Your task to perform on an android device: Open Google Chrome Image 0: 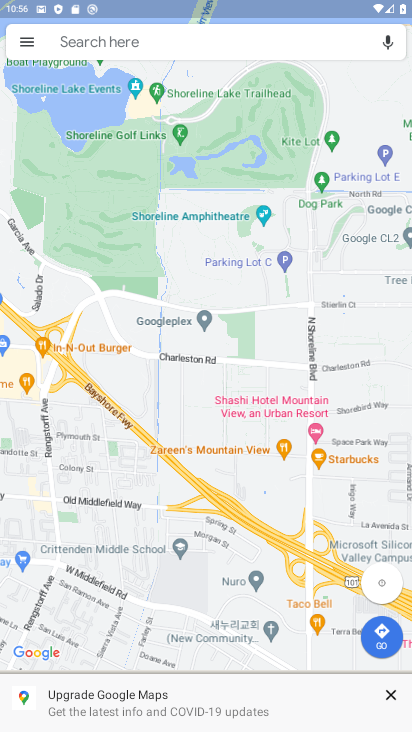
Step 0: press home button
Your task to perform on an android device: Open Google Chrome Image 1: 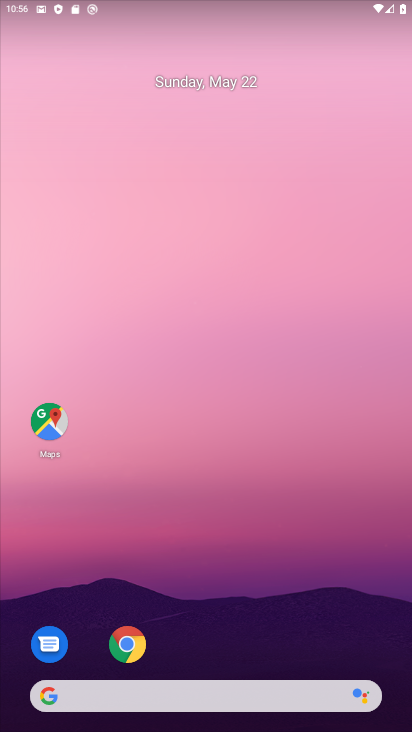
Step 1: click (124, 641)
Your task to perform on an android device: Open Google Chrome Image 2: 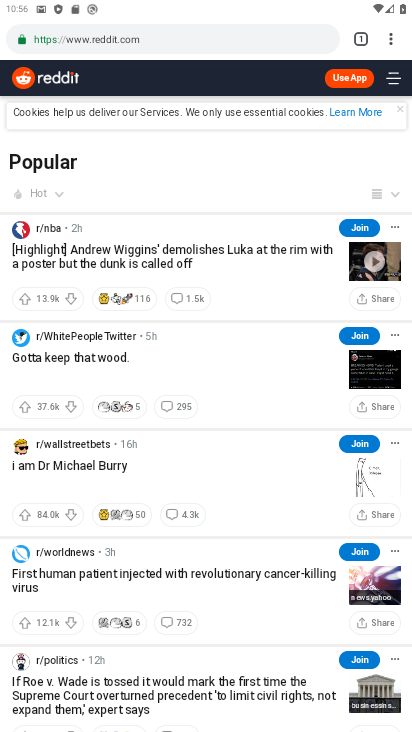
Step 2: click (360, 35)
Your task to perform on an android device: Open Google Chrome Image 3: 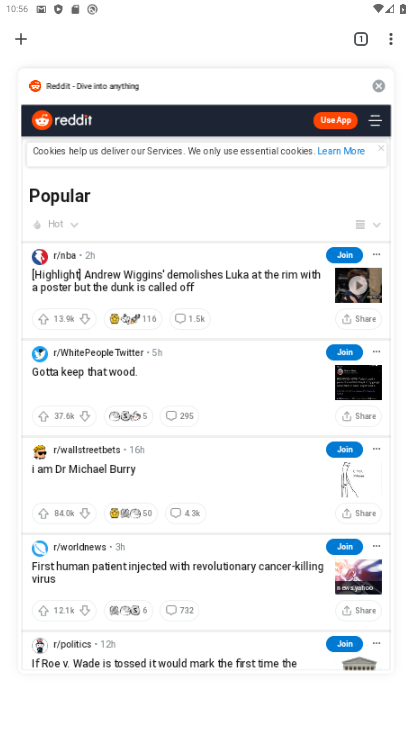
Step 3: click (380, 84)
Your task to perform on an android device: Open Google Chrome Image 4: 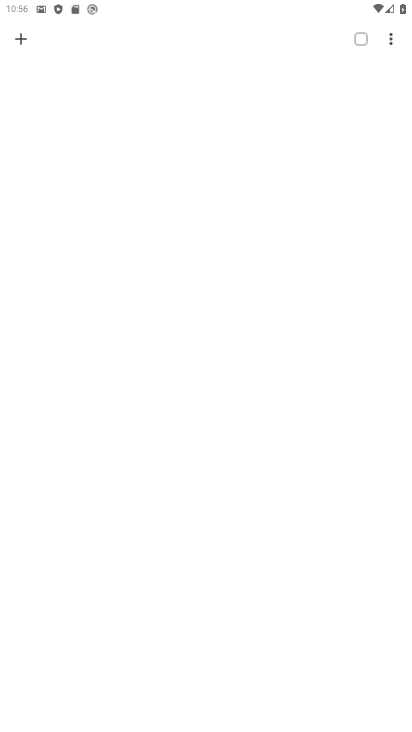
Step 4: click (21, 30)
Your task to perform on an android device: Open Google Chrome Image 5: 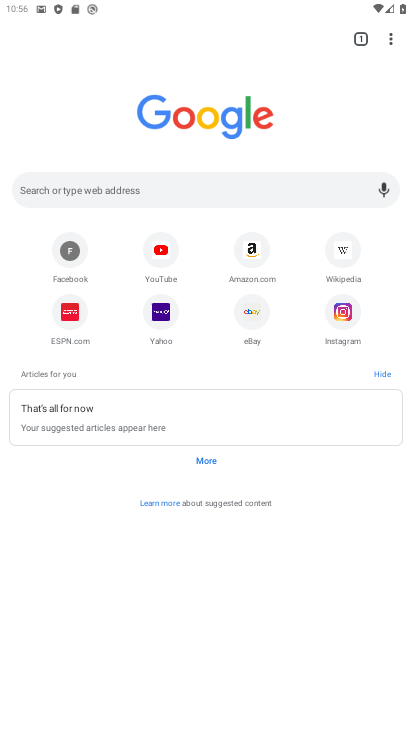
Step 5: task complete